Your task to perform on an android device: Go to display settings Image 0: 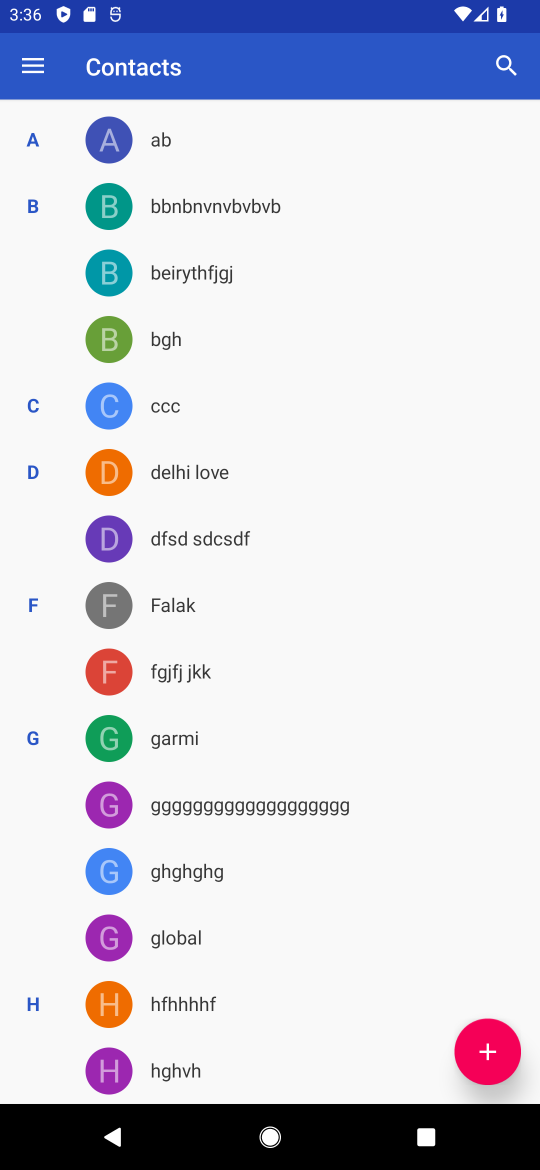
Step 0: press home button
Your task to perform on an android device: Go to display settings Image 1: 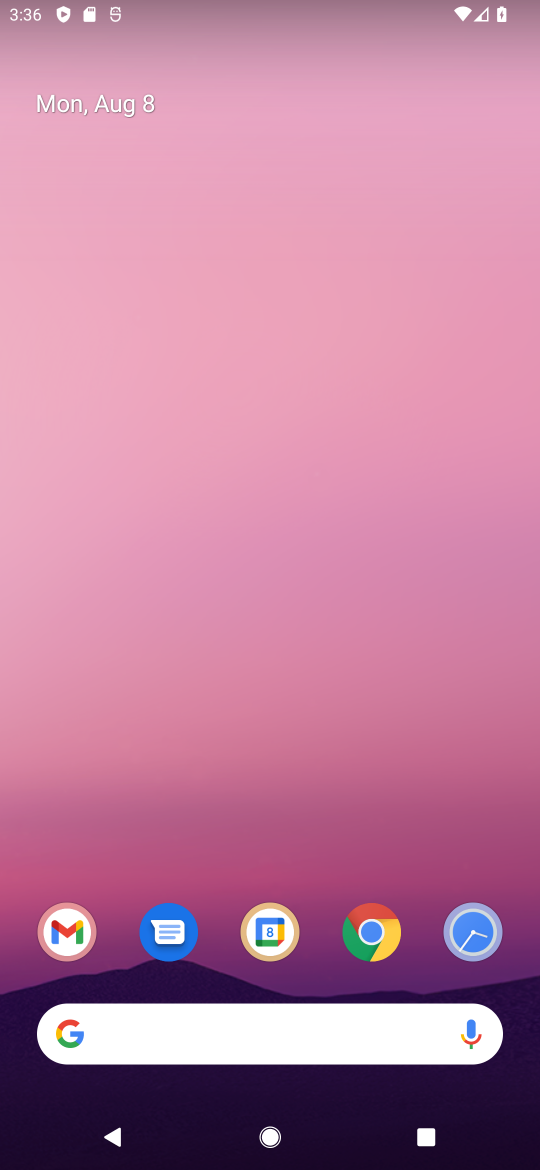
Step 1: drag from (332, 1112) to (210, 227)
Your task to perform on an android device: Go to display settings Image 2: 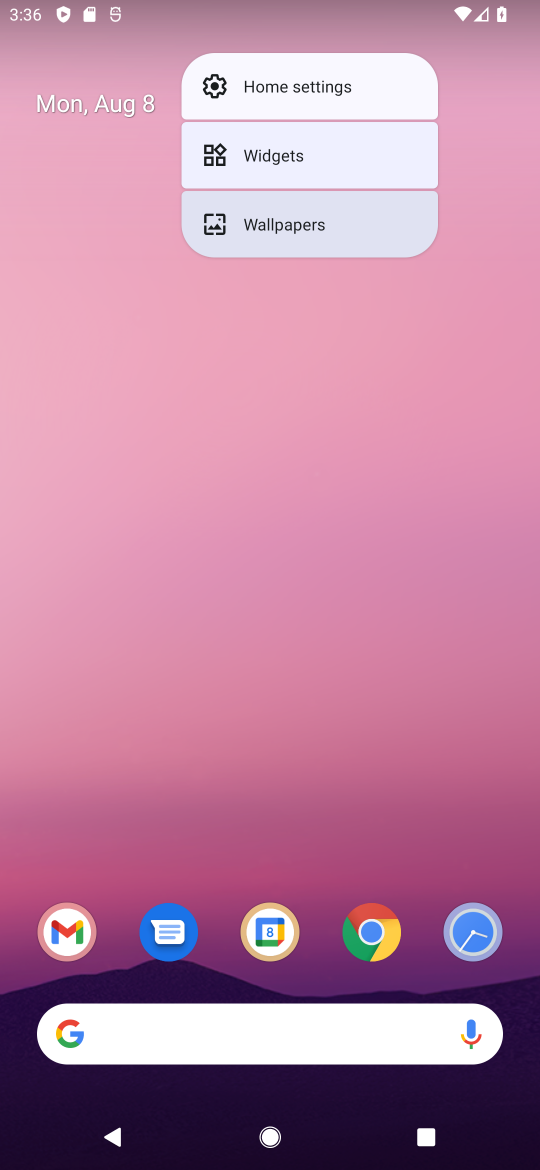
Step 2: drag from (118, 452) to (107, 267)
Your task to perform on an android device: Go to display settings Image 3: 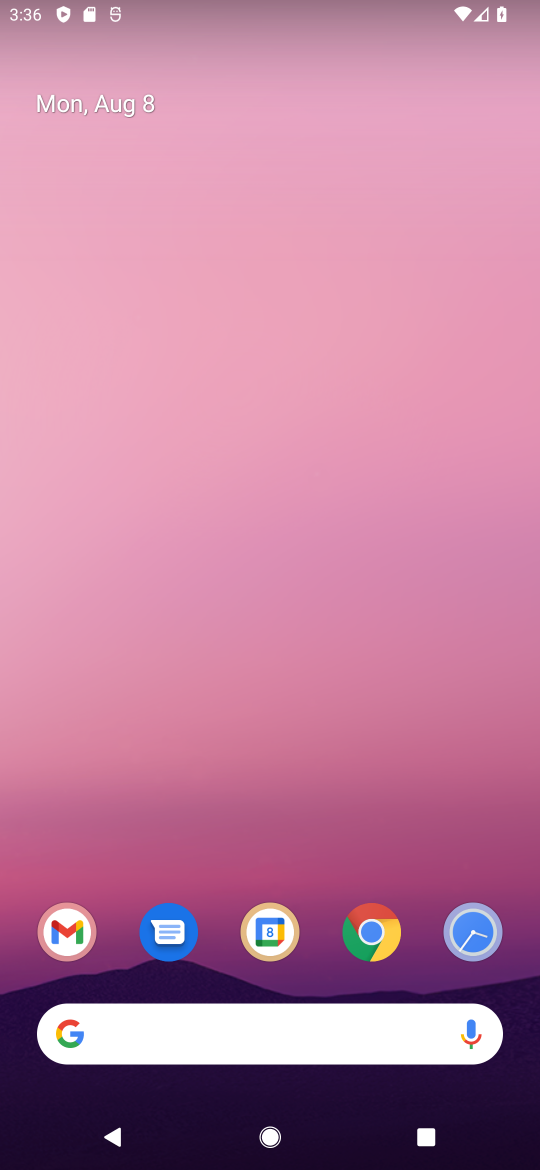
Step 3: drag from (192, 1126) to (289, 234)
Your task to perform on an android device: Go to display settings Image 4: 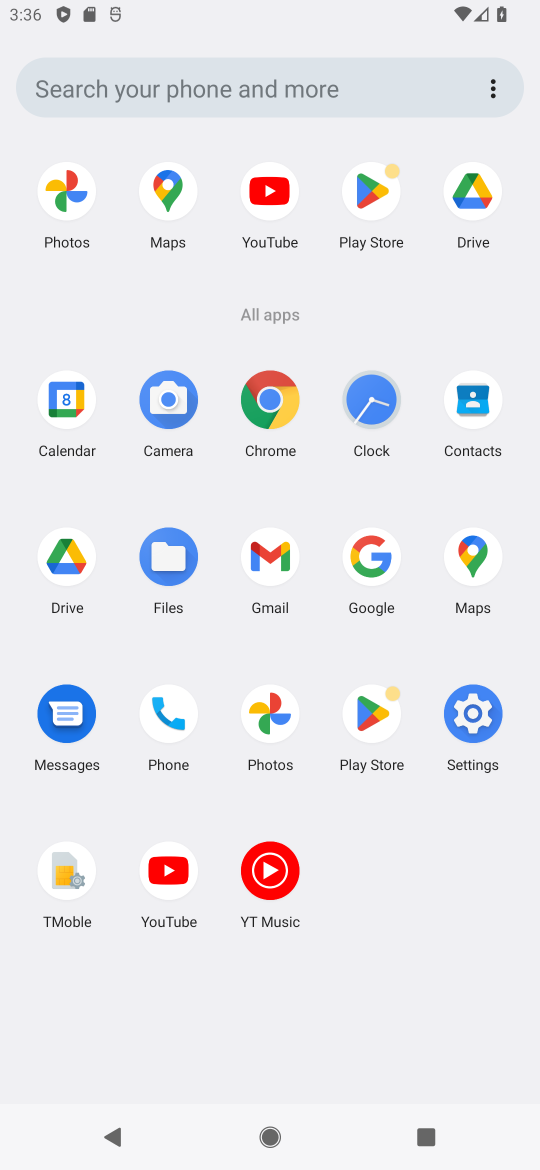
Step 4: click (472, 709)
Your task to perform on an android device: Go to display settings Image 5: 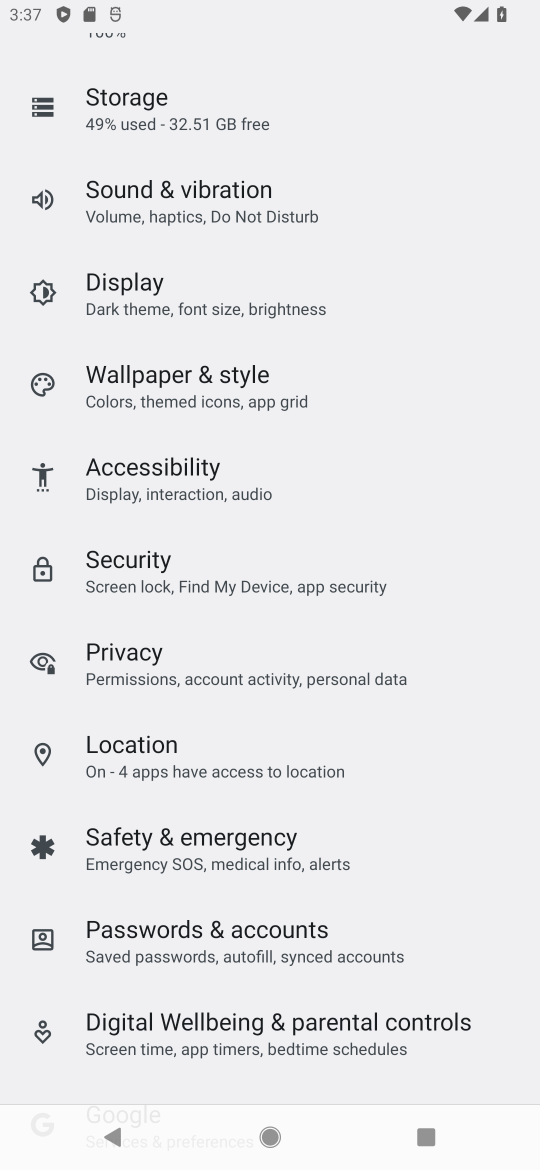
Step 5: click (287, 299)
Your task to perform on an android device: Go to display settings Image 6: 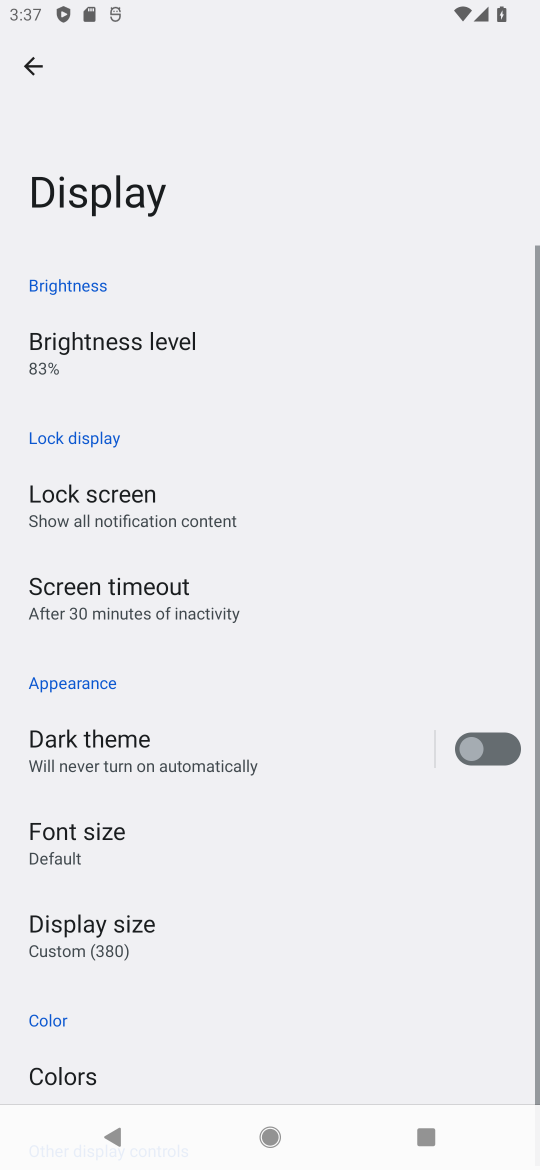
Step 6: task complete